Your task to perform on an android device: turn notification dots on Image 0: 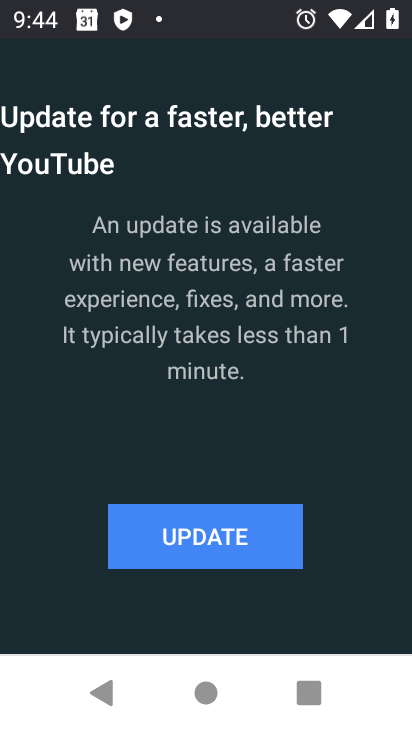
Step 0: press back button
Your task to perform on an android device: turn notification dots on Image 1: 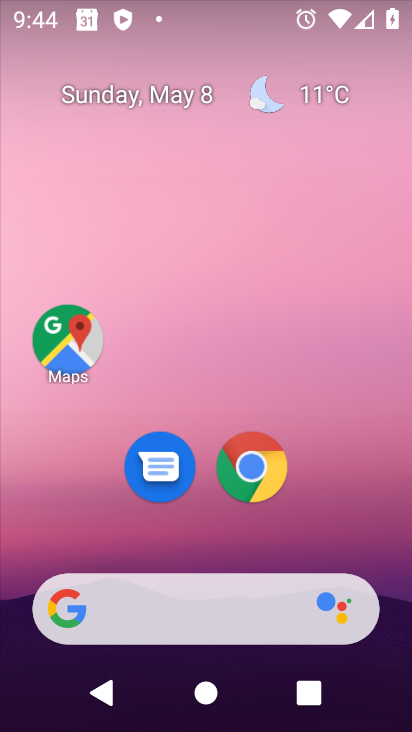
Step 1: drag from (335, 725) to (227, 165)
Your task to perform on an android device: turn notification dots on Image 2: 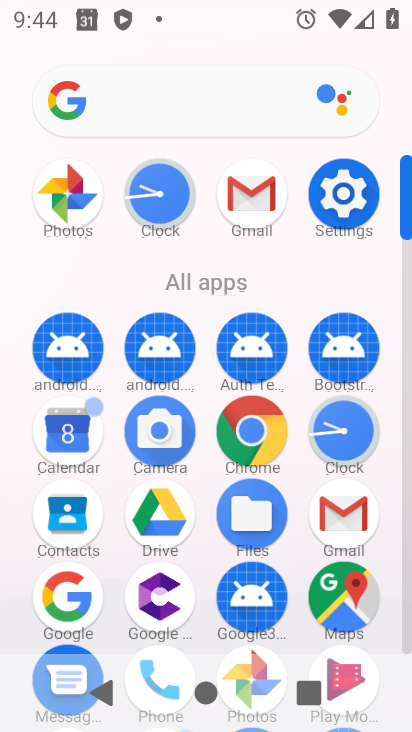
Step 2: click (348, 187)
Your task to perform on an android device: turn notification dots on Image 3: 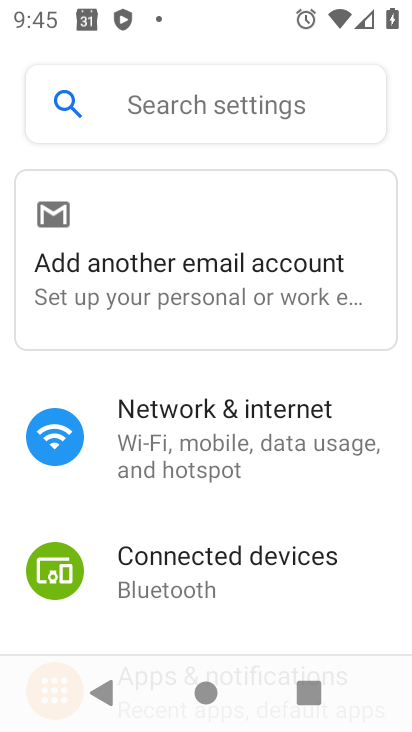
Step 3: drag from (270, 594) to (352, 199)
Your task to perform on an android device: turn notification dots on Image 4: 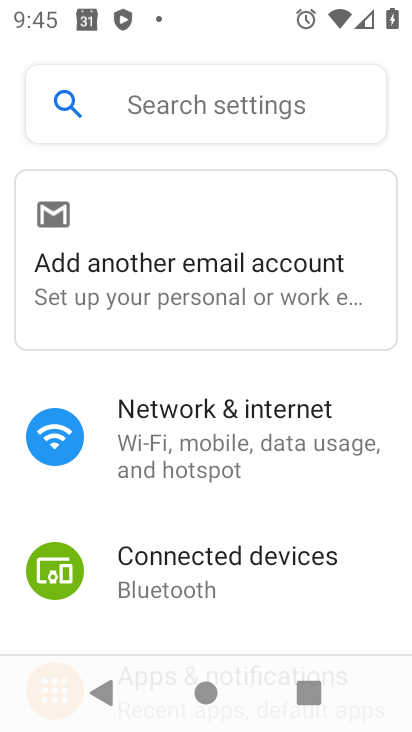
Step 4: drag from (167, 614) to (279, 233)
Your task to perform on an android device: turn notification dots on Image 5: 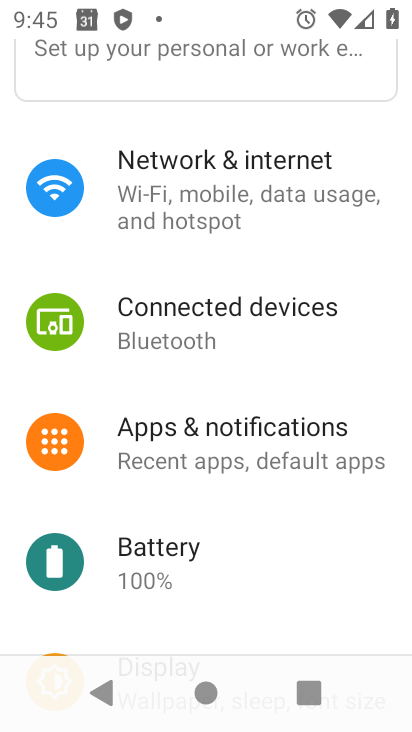
Step 5: click (213, 425)
Your task to perform on an android device: turn notification dots on Image 6: 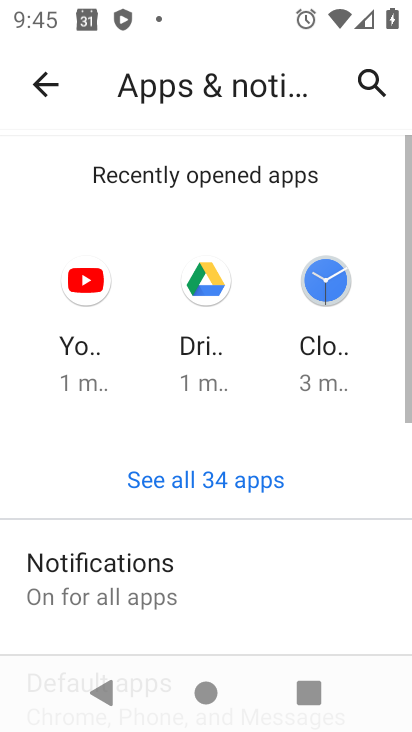
Step 6: click (185, 577)
Your task to perform on an android device: turn notification dots on Image 7: 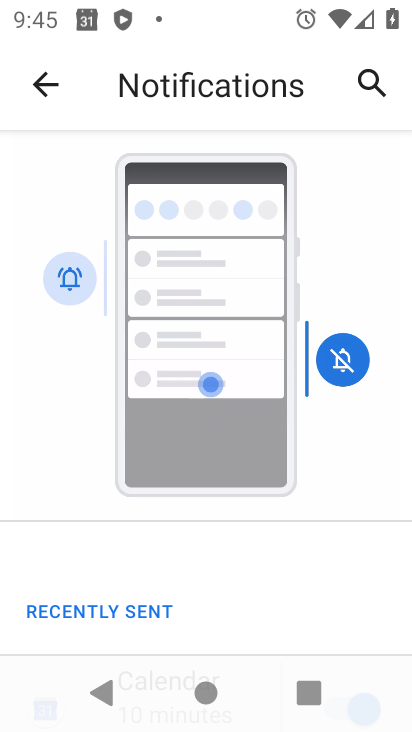
Step 7: drag from (147, 614) to (239, 258)
Your task to perform on an android device: turn notification dots on Image 8: 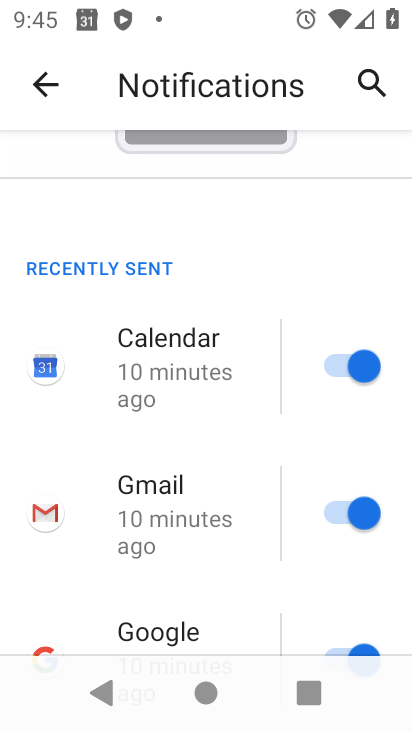
Step 8: drag from (141, 584) to (283, 50)
Your task to perform on an android device: turn notification dots on Image 9: 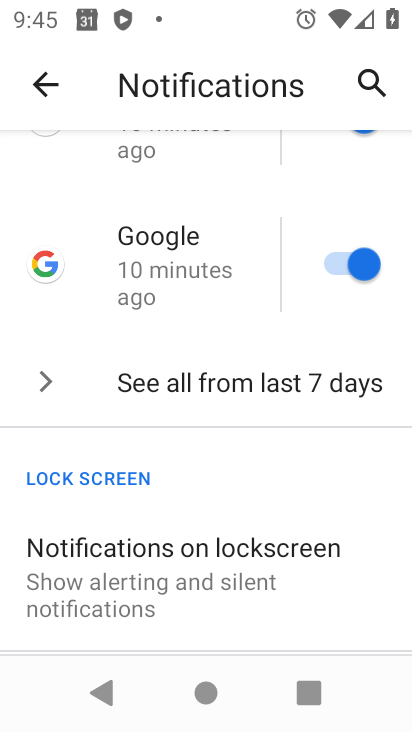
Step 9: drag from (174, 598) to (270, 236)
Your task to perform on an android device: turn notification dots on Image 10: 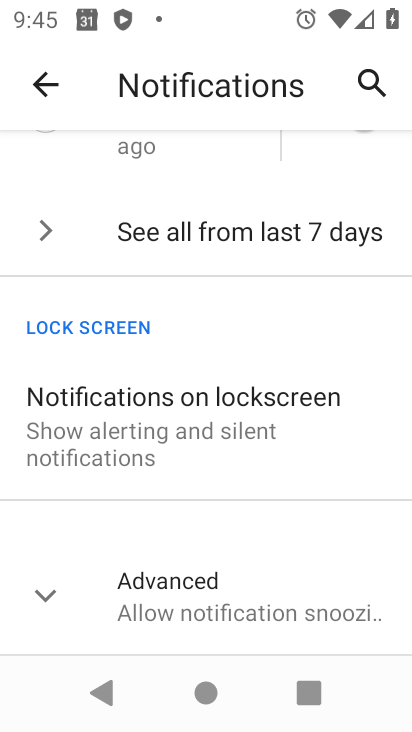
Step 10: click (181, 573)
Your task to perform on an android device: turn notification dots on Image 11: 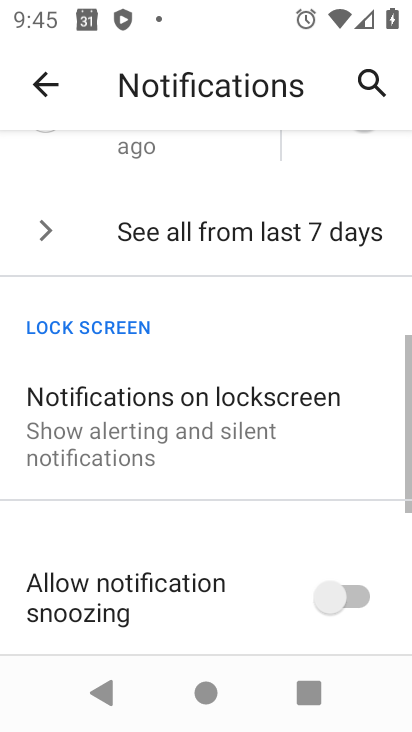
Step 11: drag from (180, 572) to (229, 178)
Your task to perform on an android device: turn notification dots on Image 12: 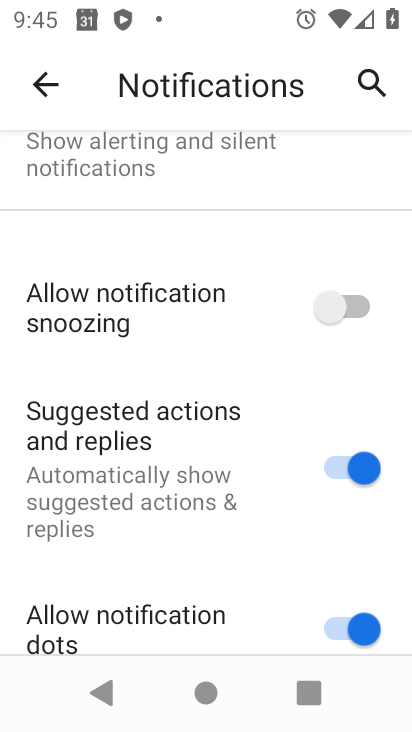
Step 12: drag from (207, 607) to (261, 291)
Your task to perform on an android device: turn notification dots on Image 13: 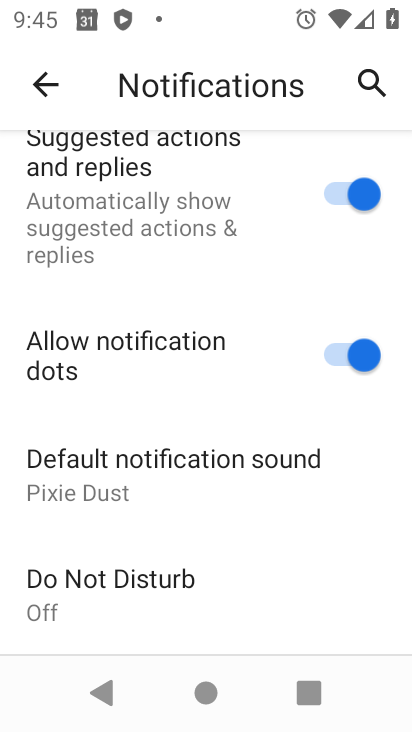
Step 13: click (369, 351)
Your task to perform on an android device: turn notification dots on Image 14: 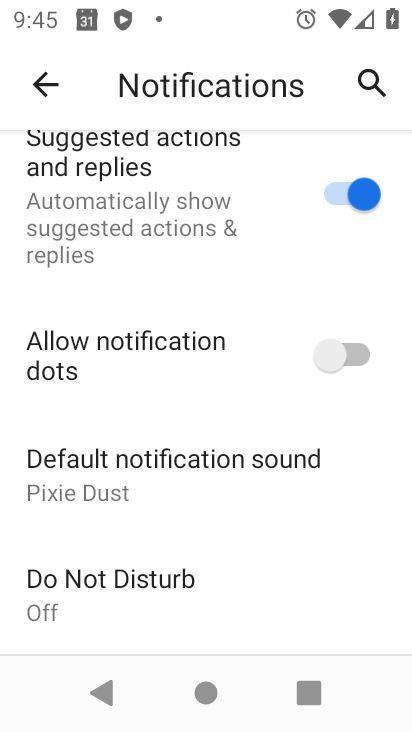
Step 14: click (325, 345)
Your task to perform on an android device: turn notification dots on Image 15: 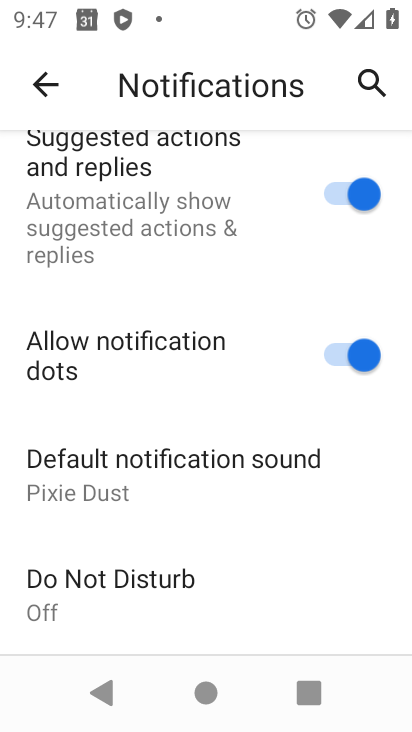
Step 15: task complete